Your task to perform on an android device: Show the shopping cart on walmart.com. Image 0: 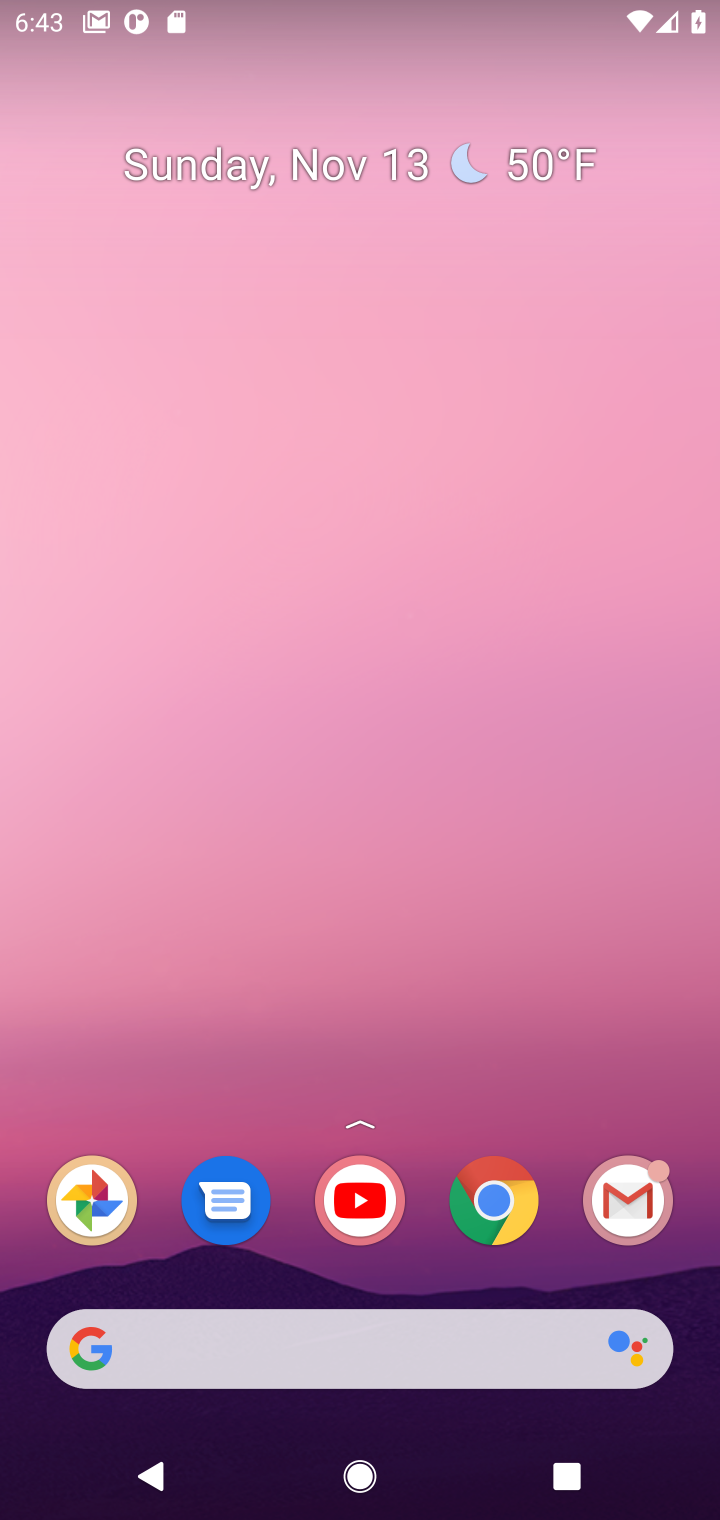
Step 0: click (478, 1234)
Your task to perform on an android device: Show the shopping cart on walmart.com. Image 1: 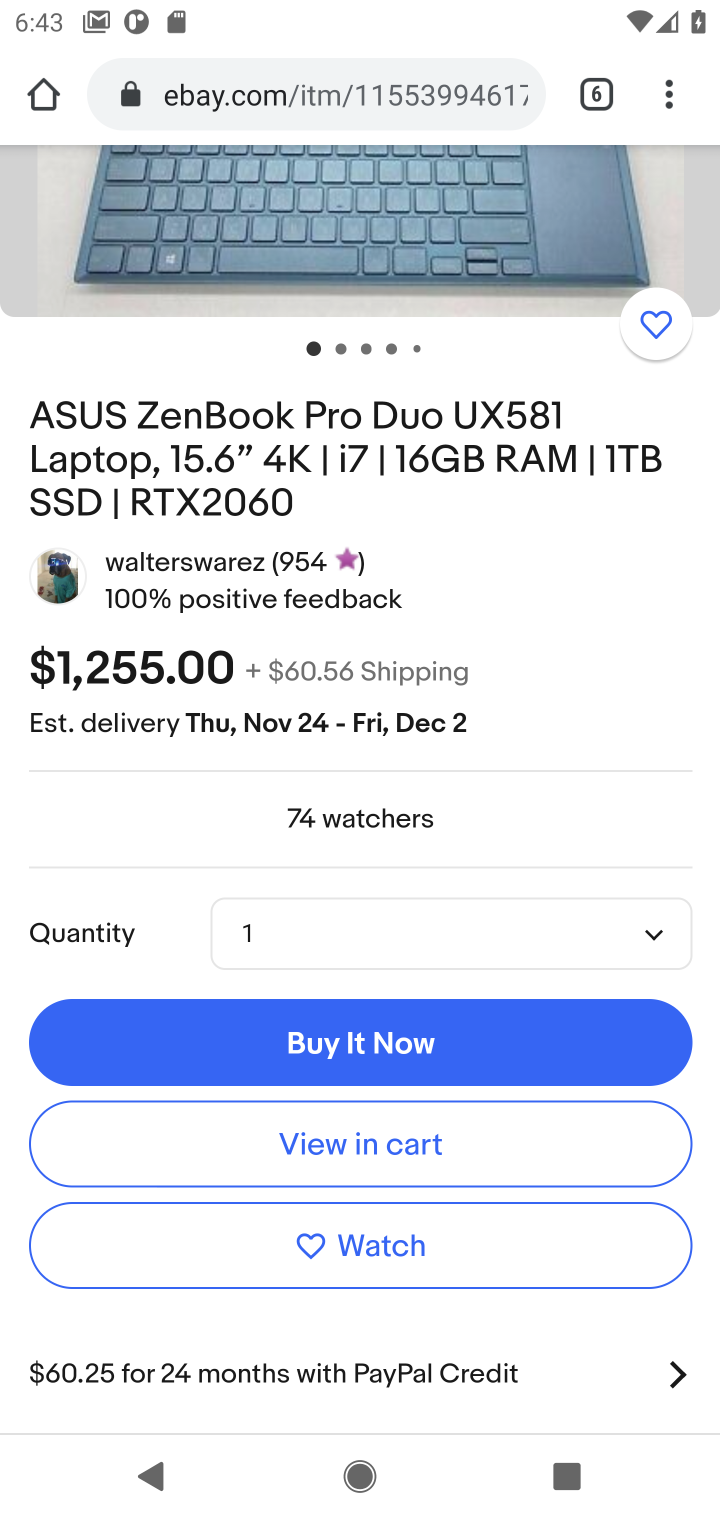
Step 1: drag from (452, 267) to (718, 1353)
Your task to perform on an android device: Show the shopping cart on walmart.com. Image 2: 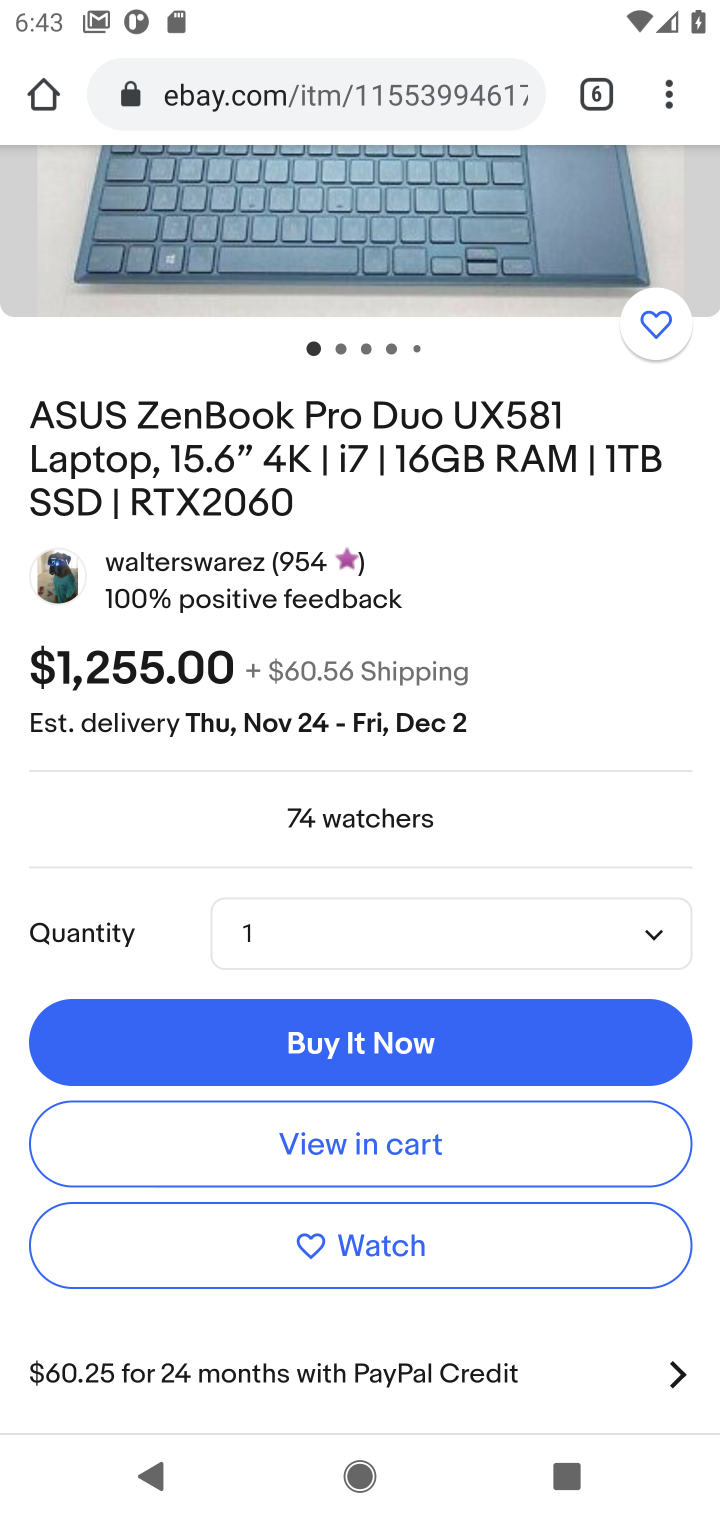
Step 2: drag from (592, 356) to (454, 994)
Your task to perform on an android device: Show the shopping cart on walmart.com. Image 3: 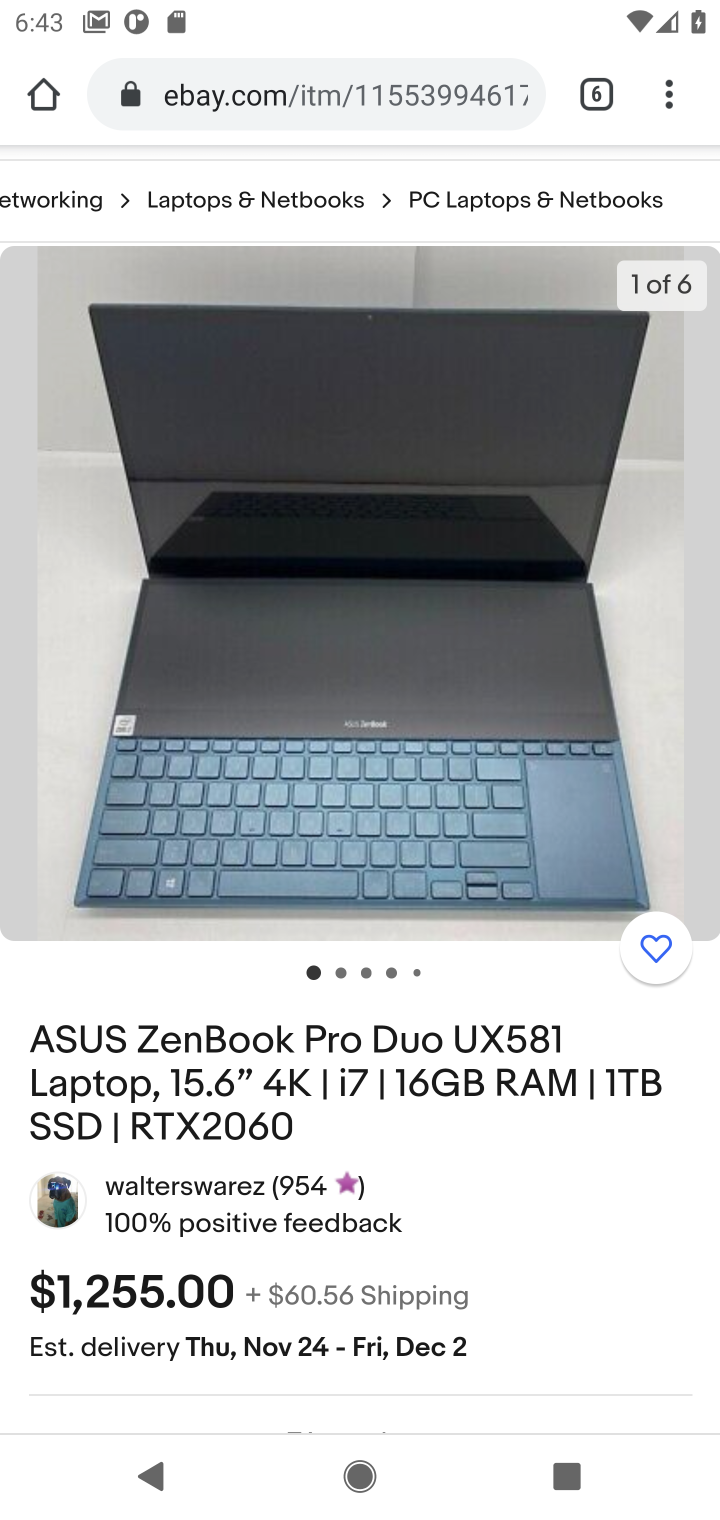
Step 3: drag from (577, 162) to (491, 752)
Your task to perform on an android device: Show the shopping cart on walmart.com. Image 4: 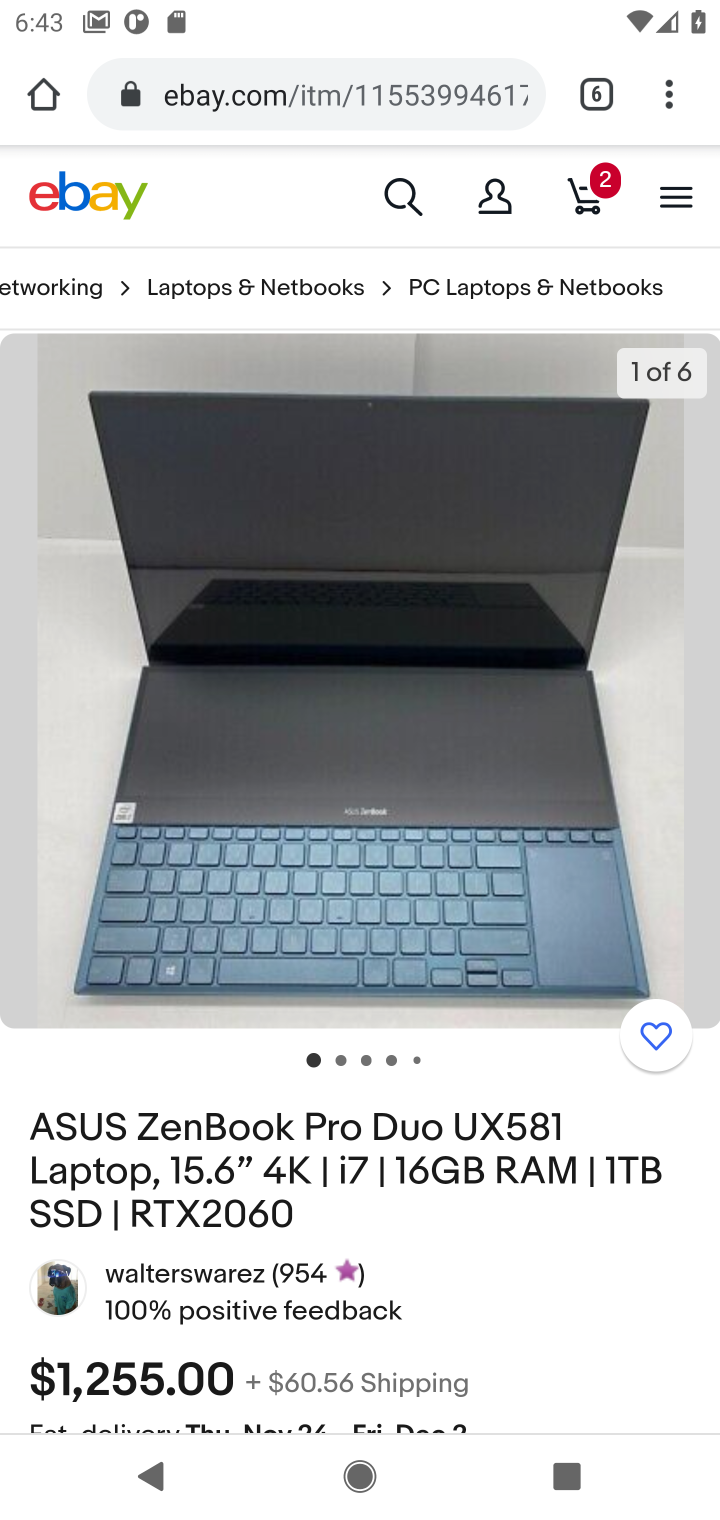
Step 4: click (594, 98)
Your task to perform on an android device: Show the shopping cart on walmart.com. Image 5: 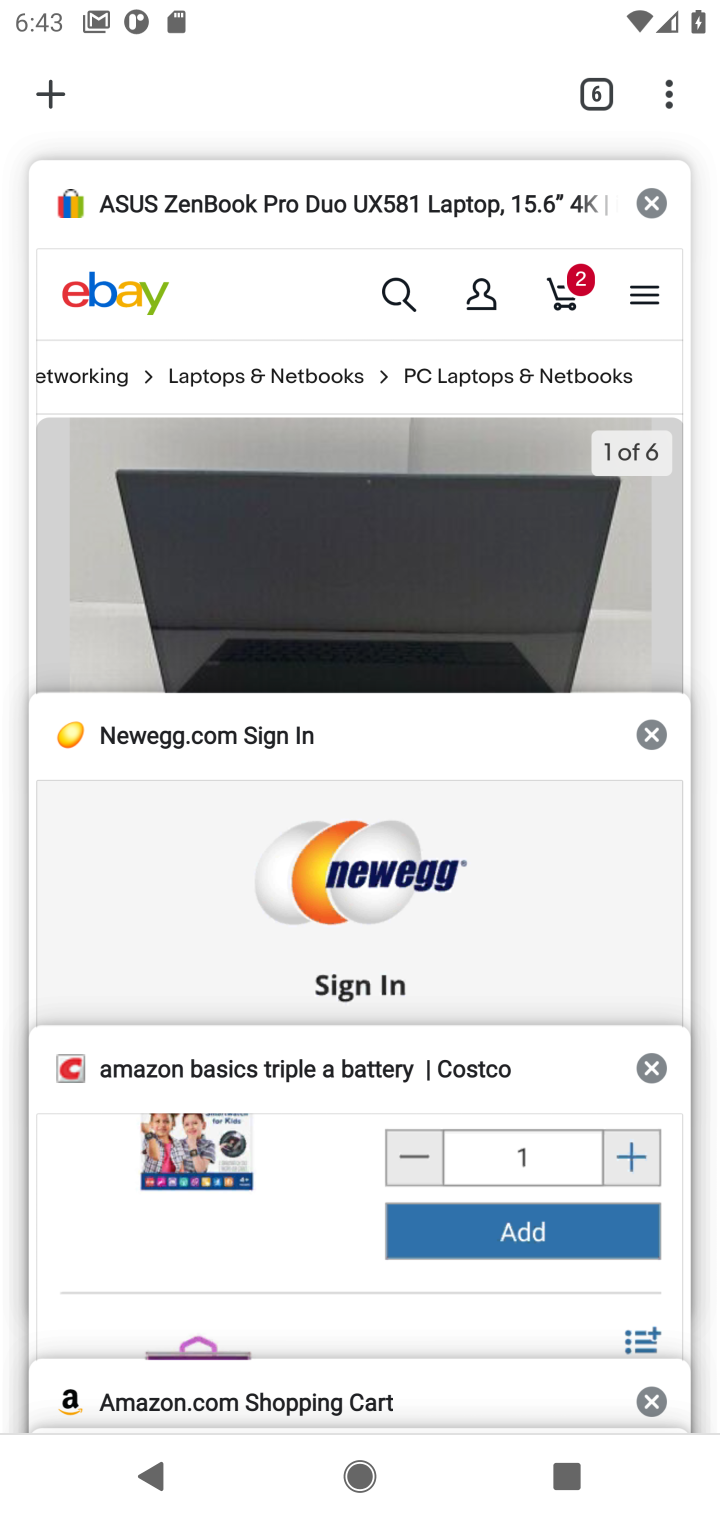
Step 5: drag from (274, 1339) to (328, 826)
Your task to perform on an android device: Show the shopping cart on walmart.com. Image 6: 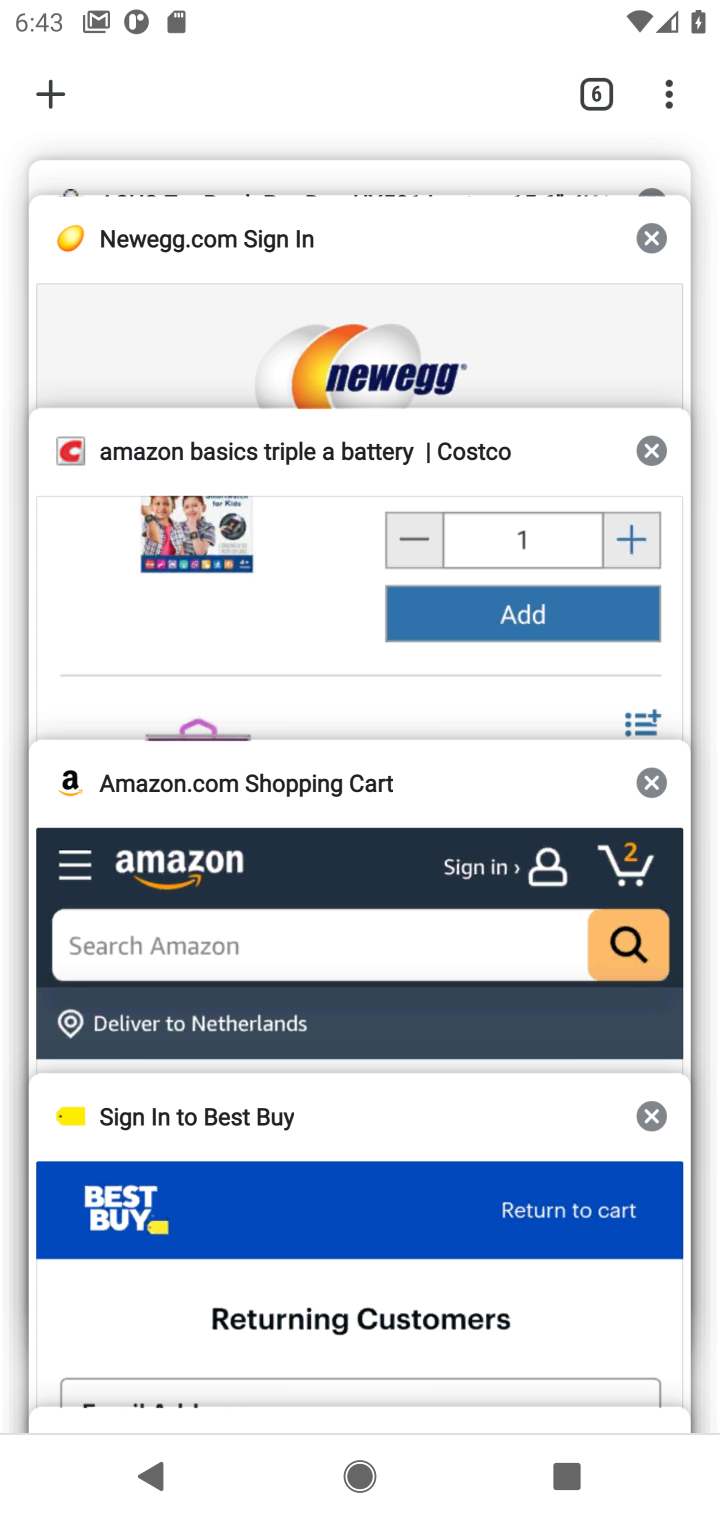
Step 6: click (341, 1232)
Your task to perform on an android device: Show the shopping cart on walmart.com. Image 7: 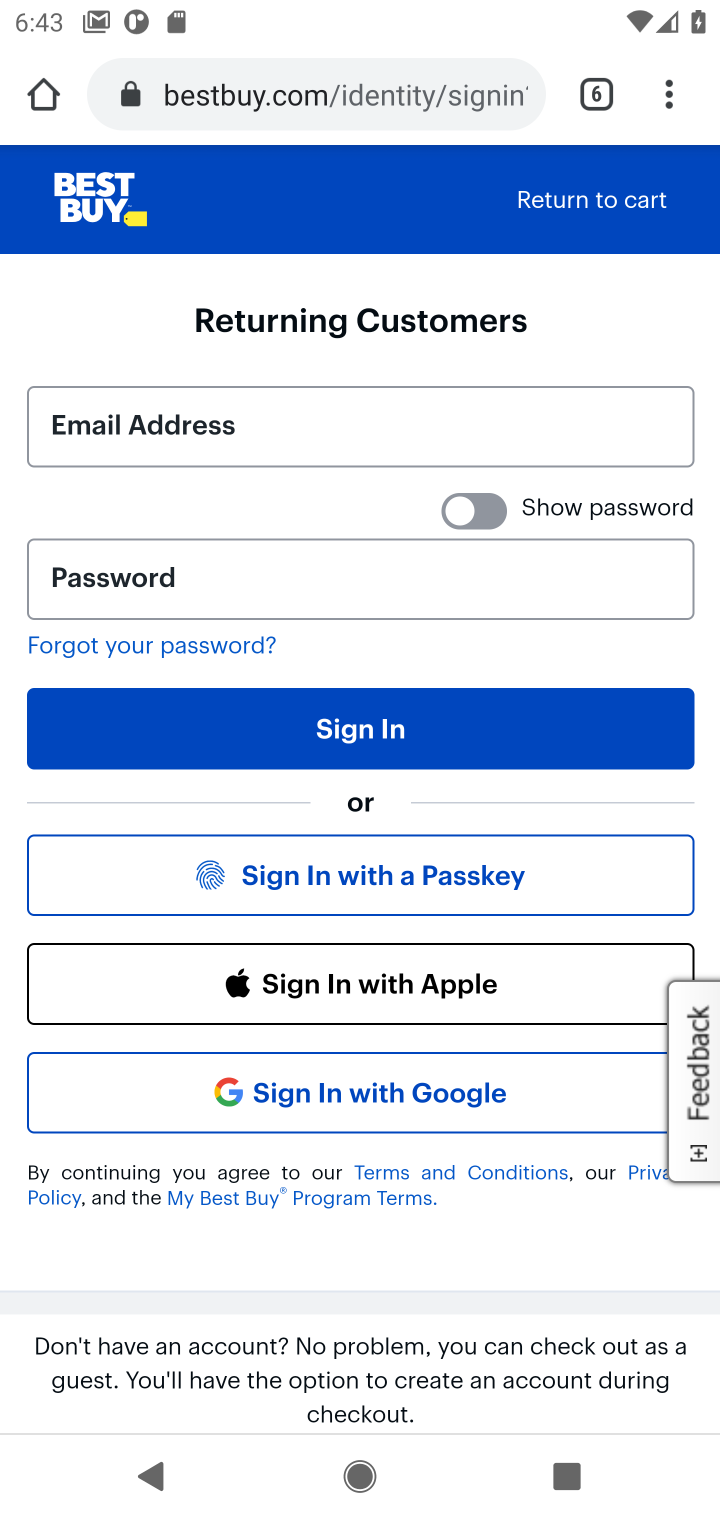
Step 7: click (591, 186)
Your task to perform on an android device: Show the shopping cart on walmart.com. Image 8: 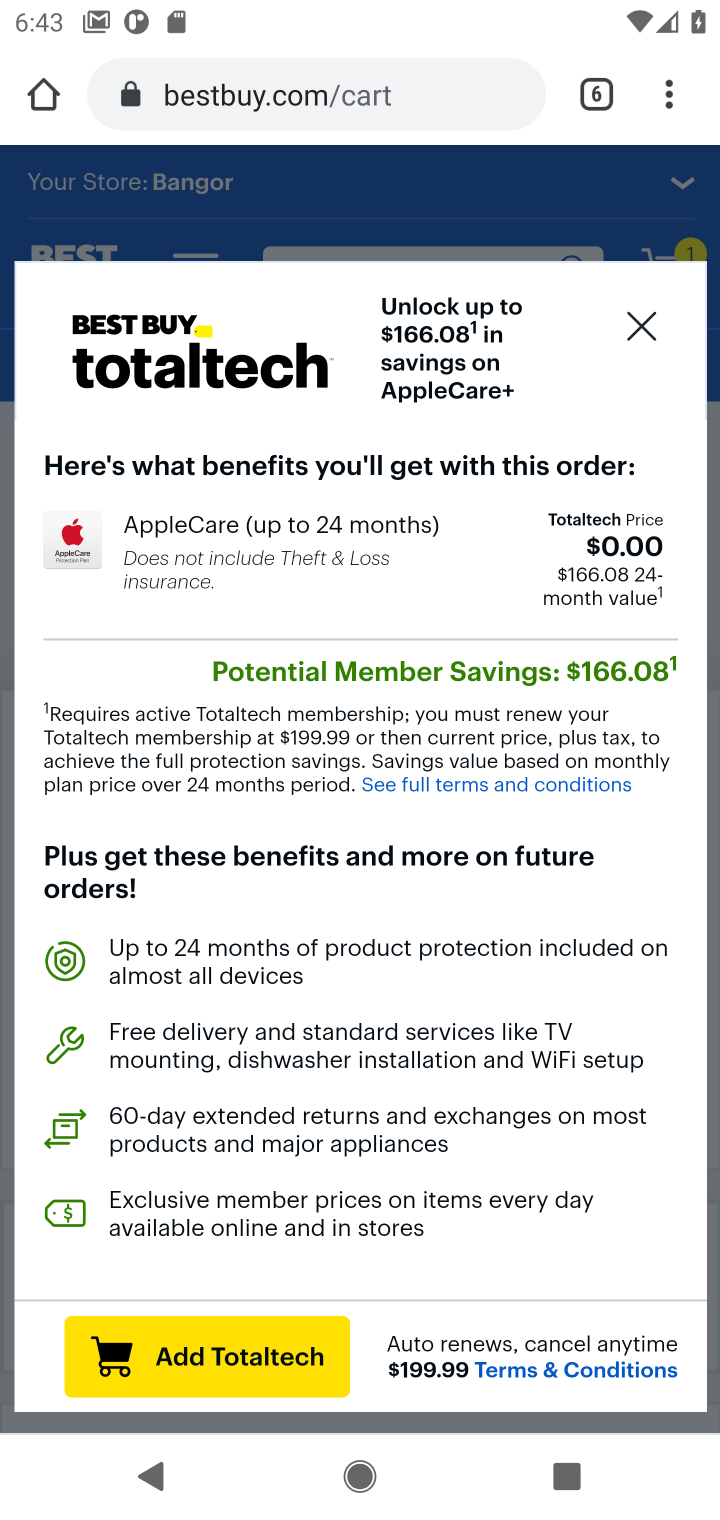
Step 8: click (644, 326)
Your task to perform on an android device: Show the shopping cart on walmart.com. Image 9: 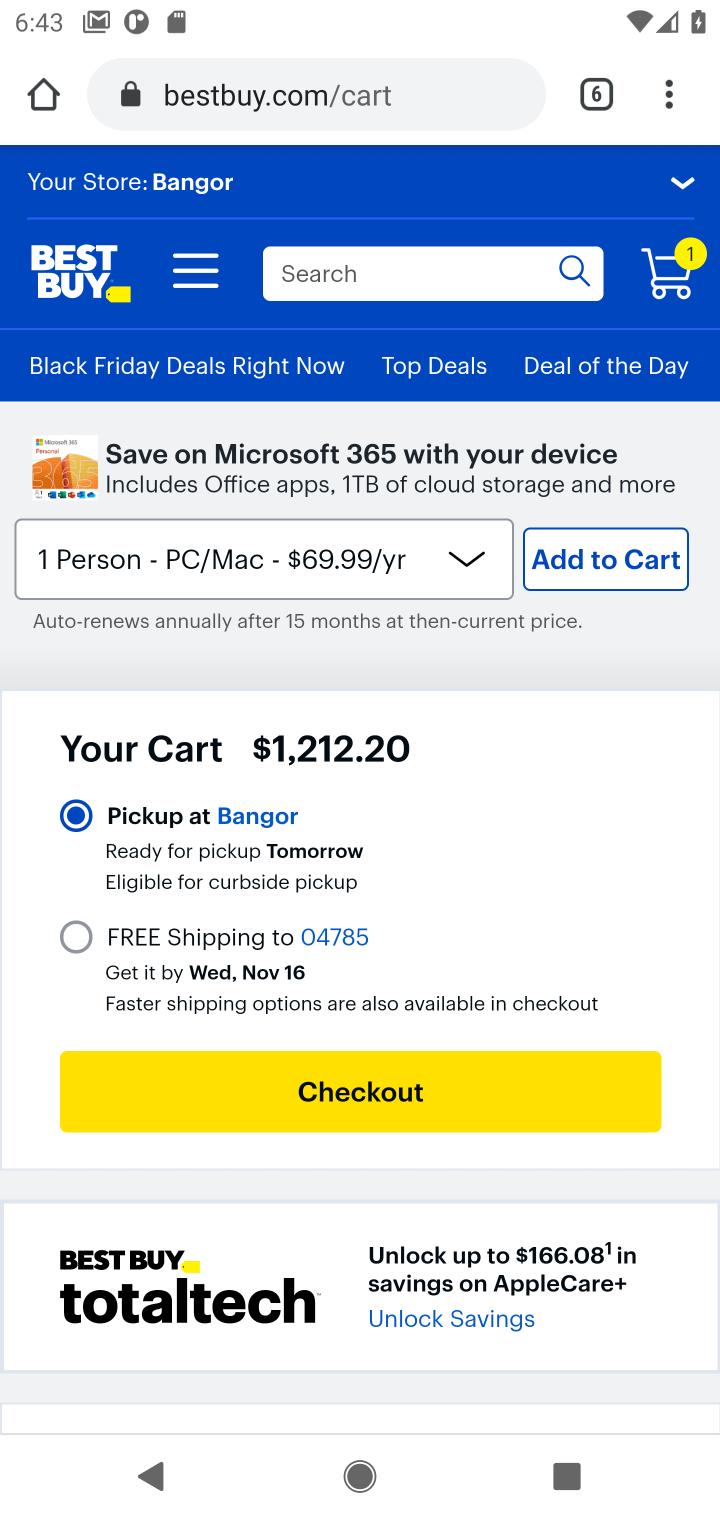
Step 9: task complete